Your task to perform on an android device: open a bookmark in the chrome app Image 0: 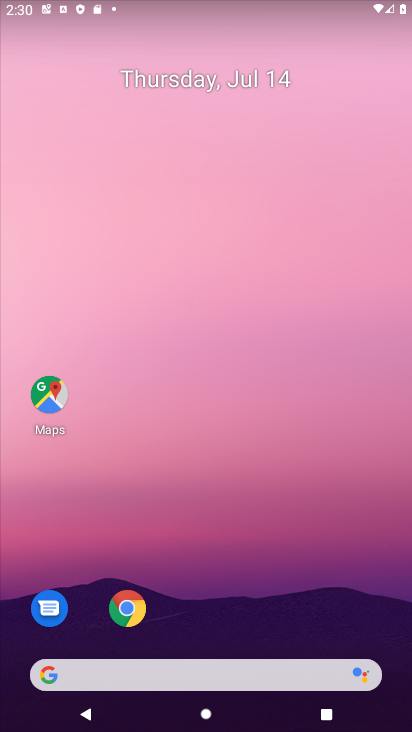
Step 0: click (128, 608)
Your task to perform on an android device: open a bookmark in the chrome app Image 1: 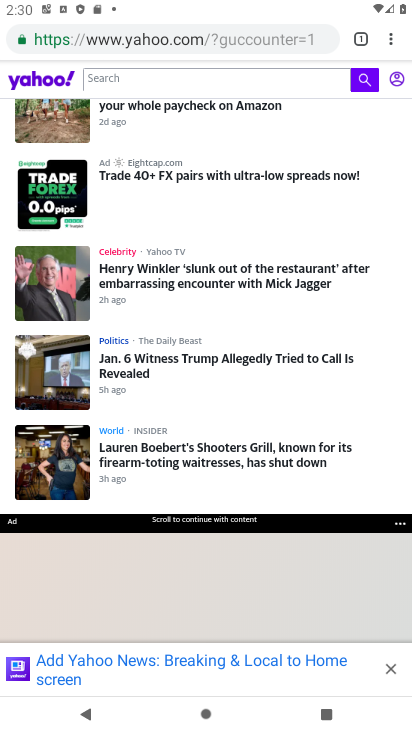
Step 1: click (391, 42)
Your task to perform on an android device: open a bookmark in the chrome app Image 2: 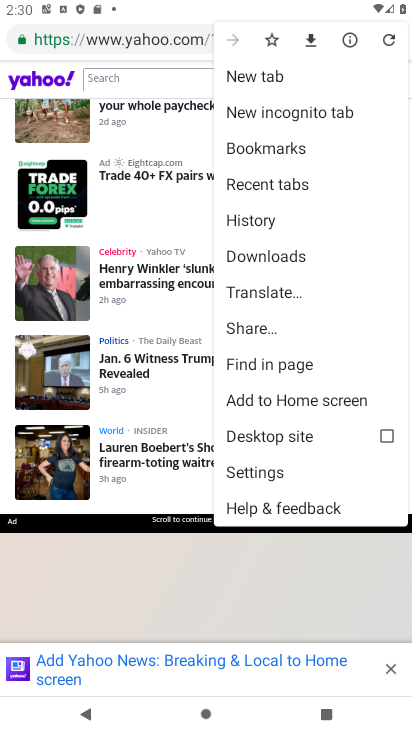
Step 2: click (254, 150)
Your task to perform on an android device: open a bookmark in the chrome app Image 3: 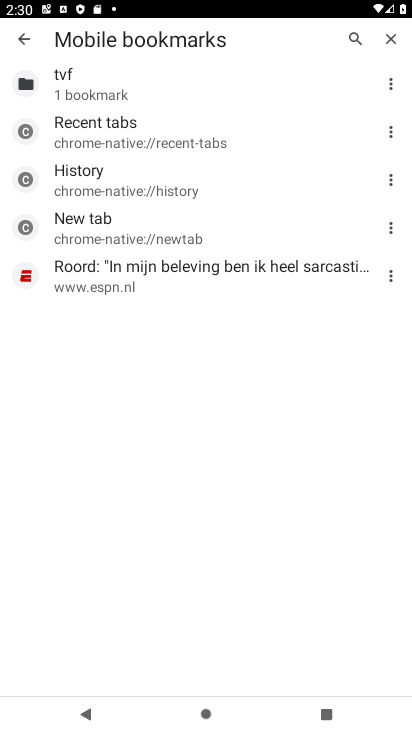
Step 3: task complete